Your task to perform on an android device: Search for hotels in Paris Image 0: 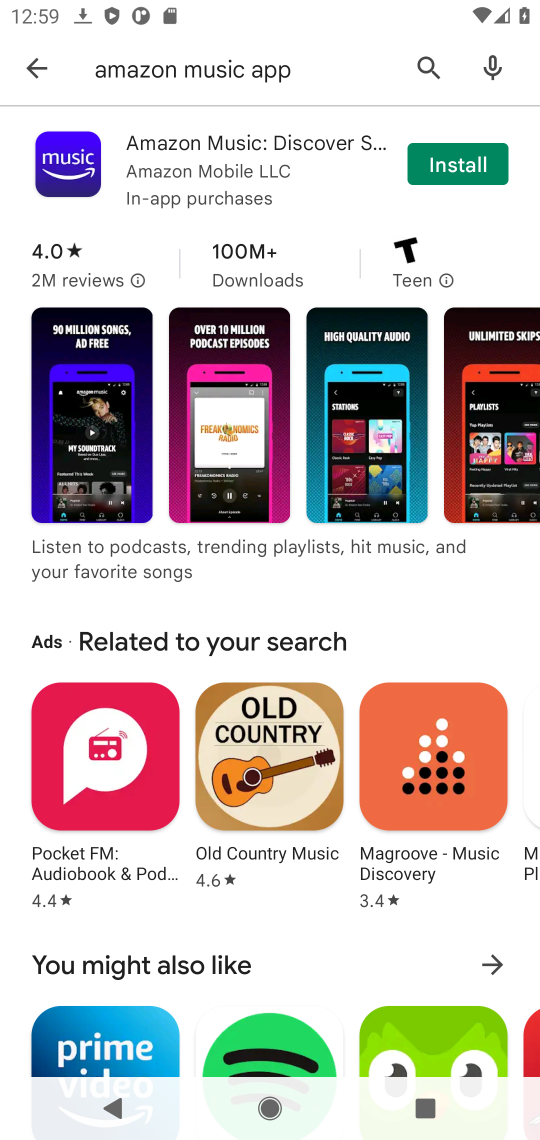
Step 0: press home button
Your task to perform on an android device: Search for hotels in Paris Image 1: 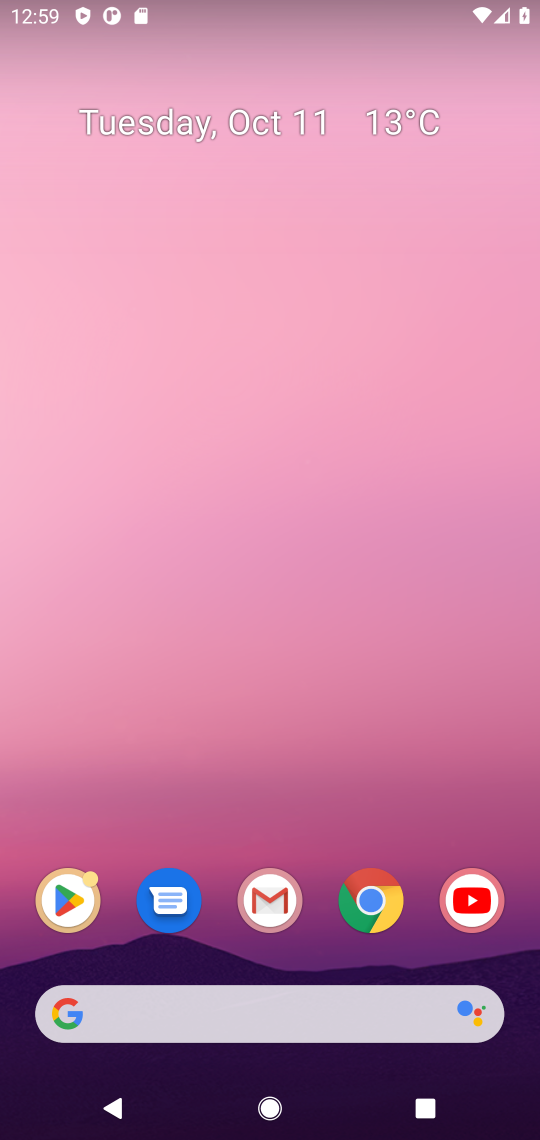
Step 1: drag from (309, 864) to (296, 329)
Your task to perform on an android device: Search for hotels in Paris Image 2: 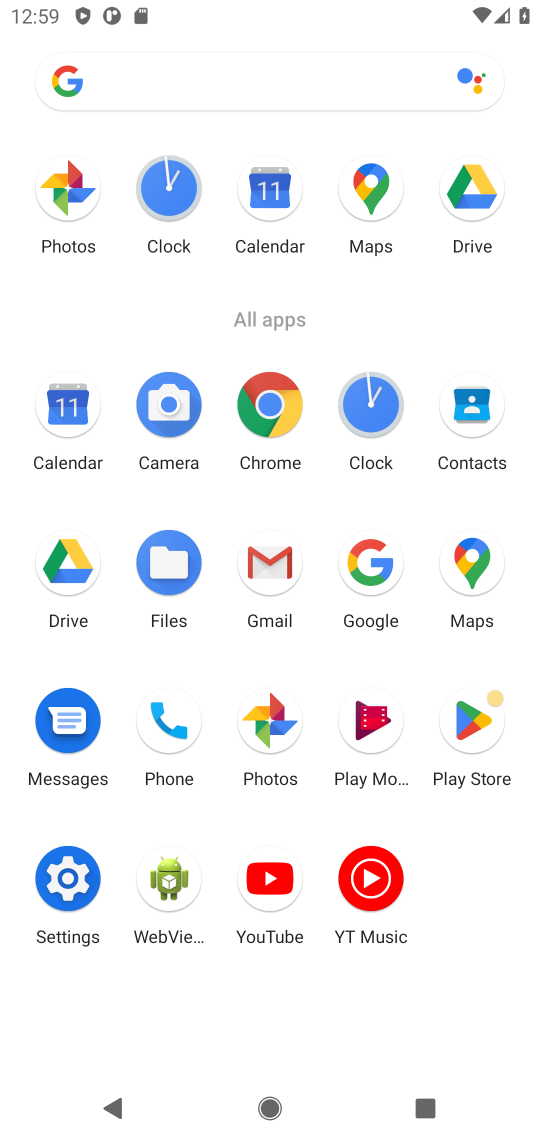
Step 2: click (262, 424)
Your task to perform on an android device: Search for hotels in Paris Image 3: 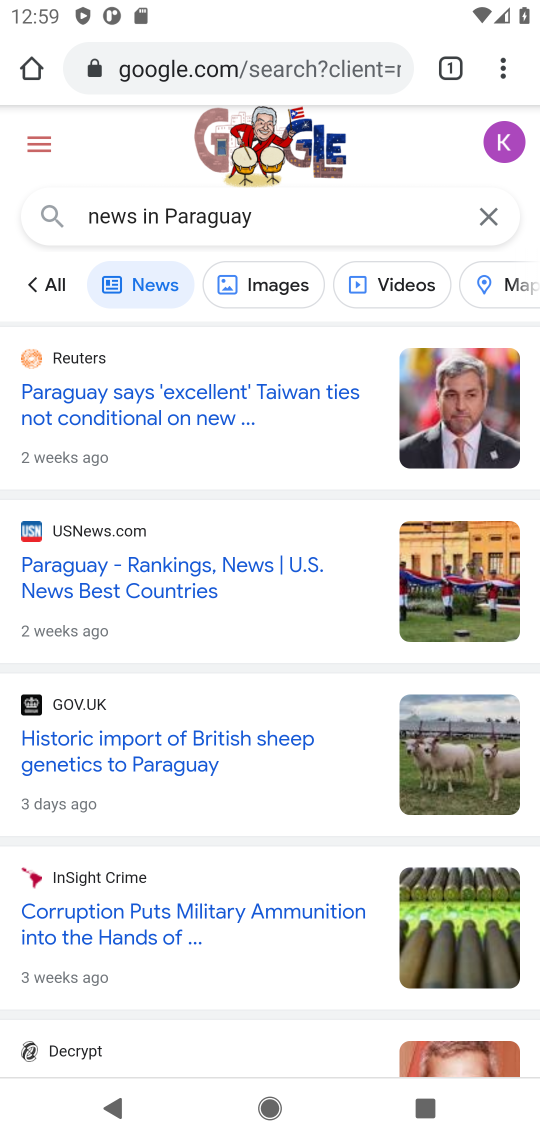
Step 3: click (305, 79)
Your task to perform on an android device: Search for hotels in Paris Image 4: 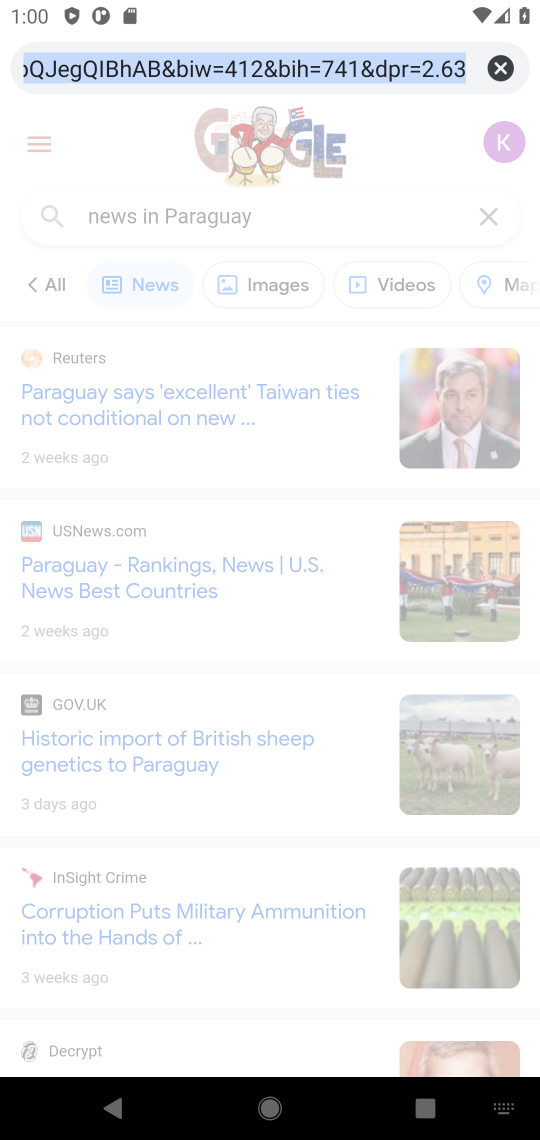
Step 4: type "hotels in paris"
Your task to perform on an android device: Search for hotels in Paris Image 5: 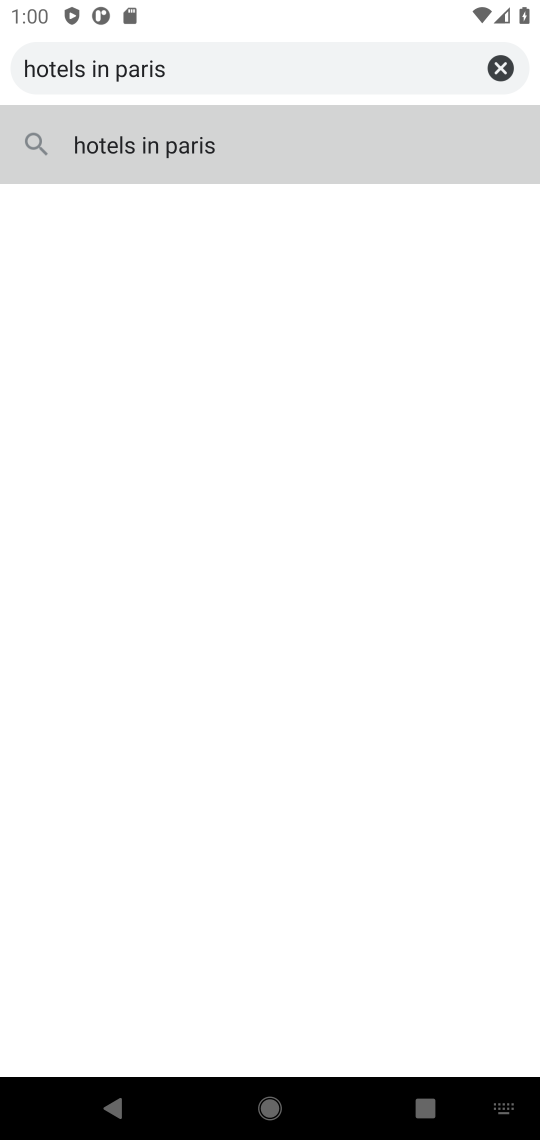
Step 5: click (229, 148)
Your task to perform on an android device: Search for hotels in Paris Image 6: 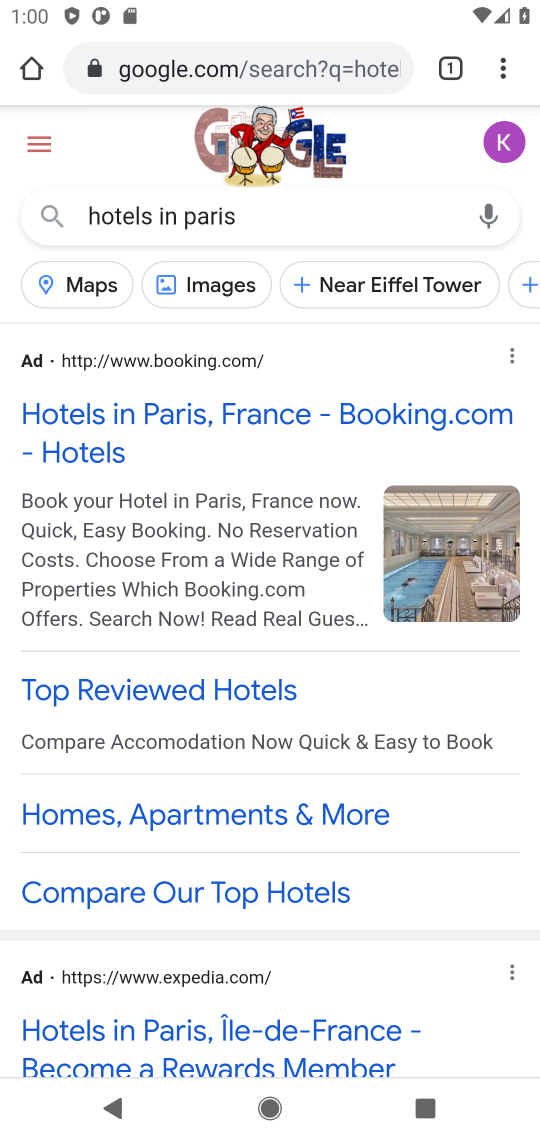
Step 6: task complete